Your task to perform on an android device: When is my next appointment? Image 0: 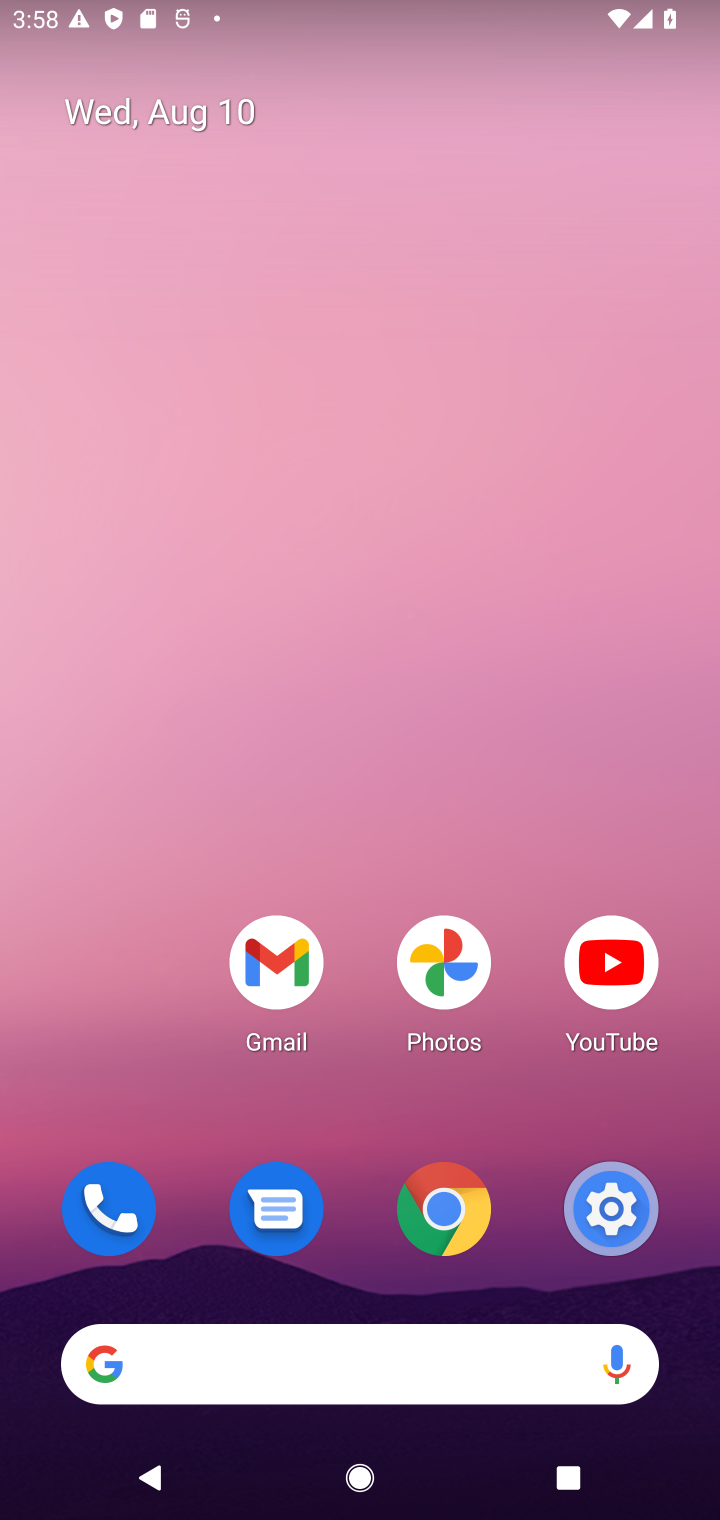
Step 0: click (198, 122)
Your task to perform on an android device: When is my next appointment? Image 1: 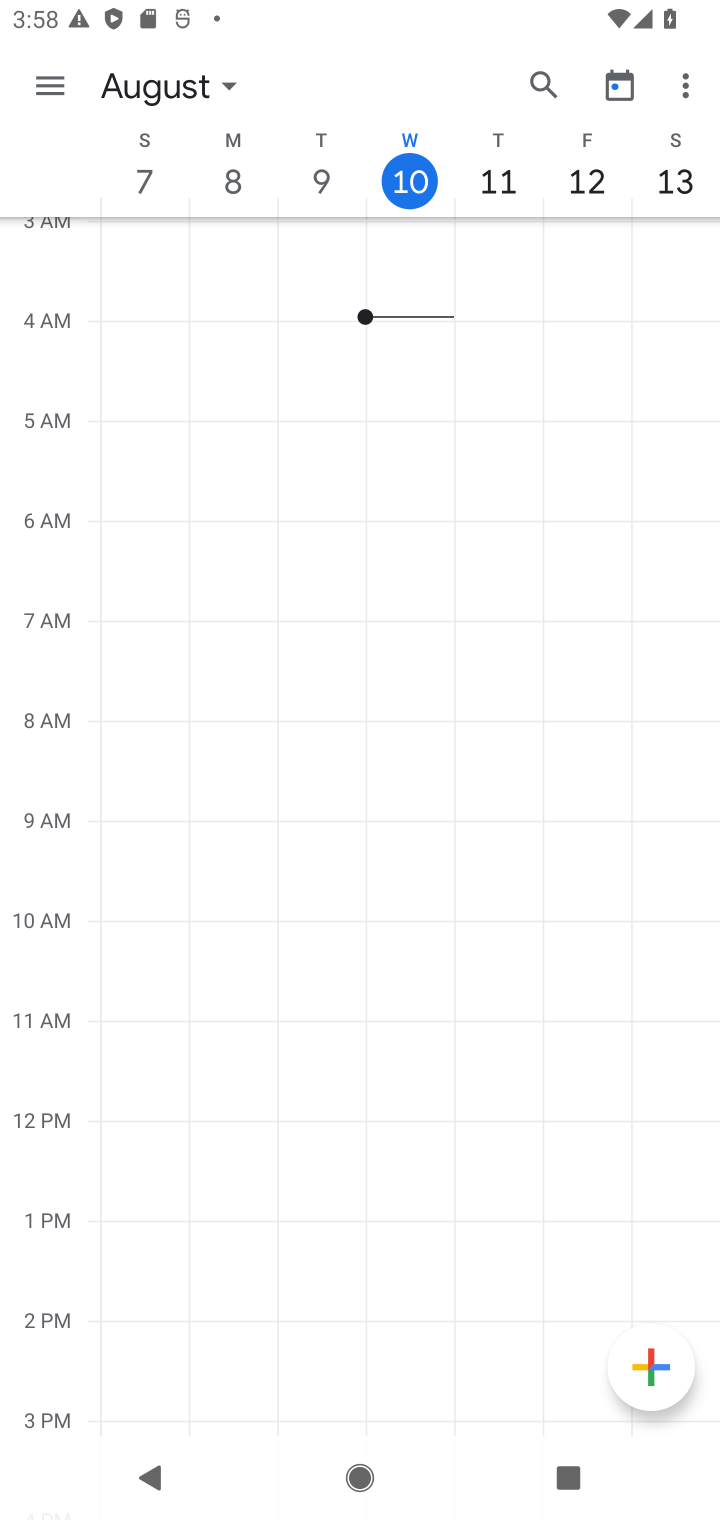
Step 1: task complete